Your task to perform on an android device: Search for logitech g910 on ebay, select the first entry, and add it to the cart. Image 0: 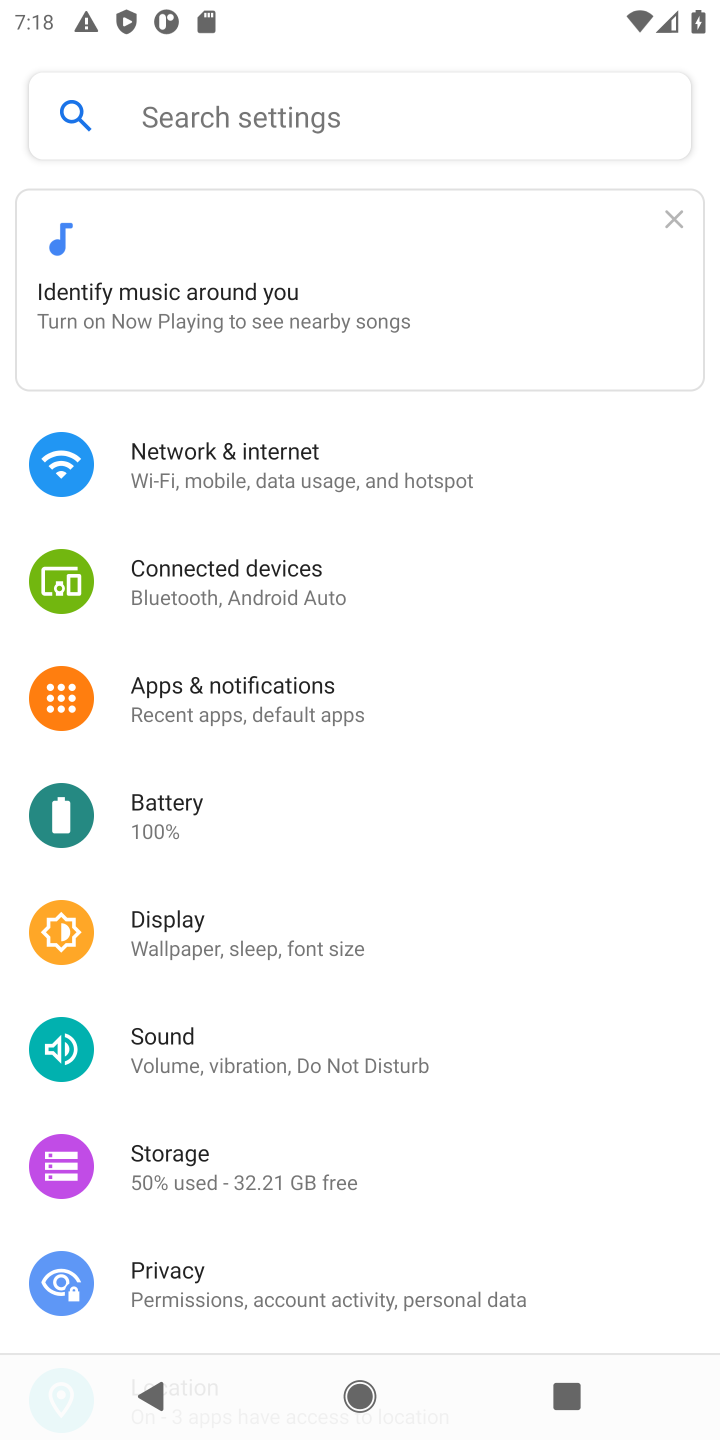
Step 0: task complete